Your task to perform on an android device: check out phone information Image 0: 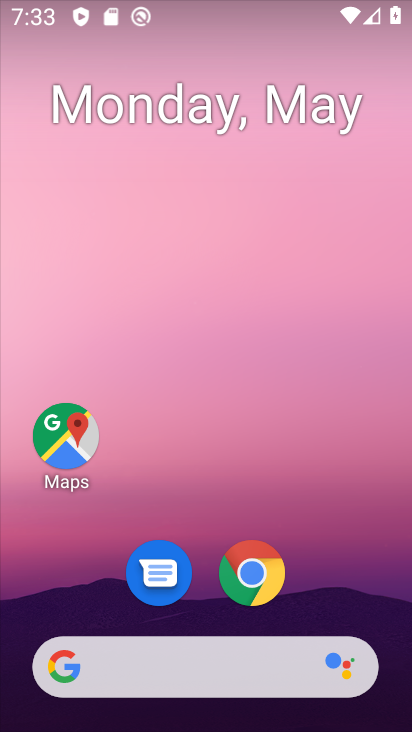
Step 0: click (266, 592)
Your task to perform on an android device: check out phone information Image 1: 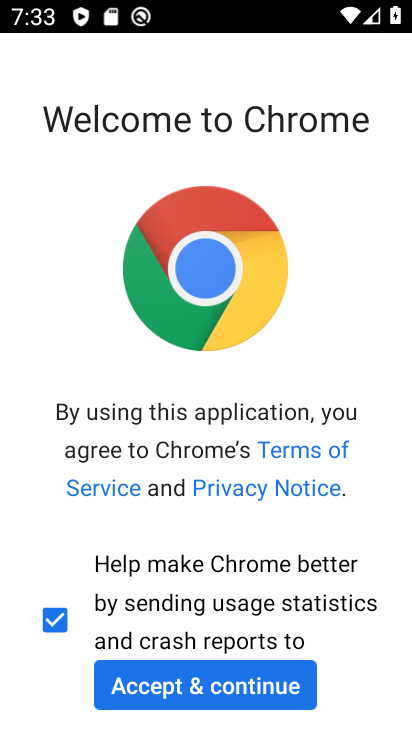
Step 1: press home button
Your task to perform on an android device: check out phone information Image 2: 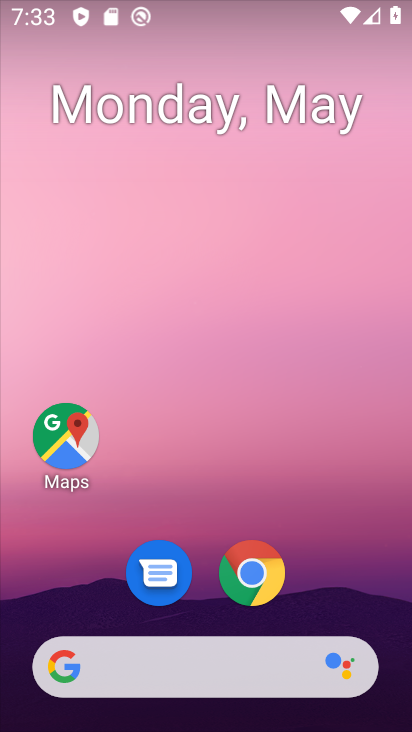
Step 2: drag from (332, 581) to (256, 28)
Your task to perform on an android device: check out phone information Image 3: 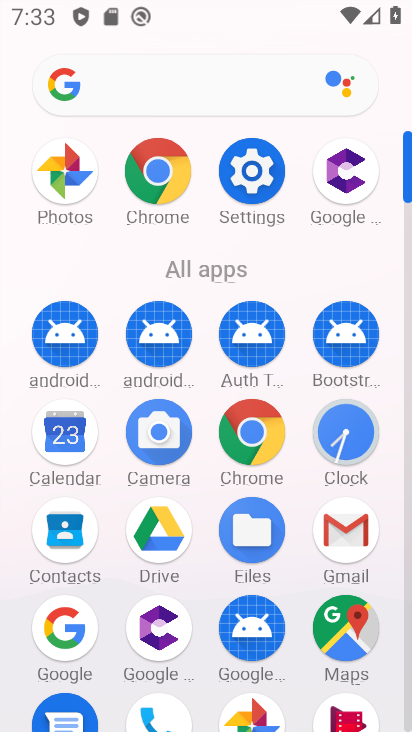
Step 3: click (246, 171)
Your task to perform on an android device: check out phone information Image 4: 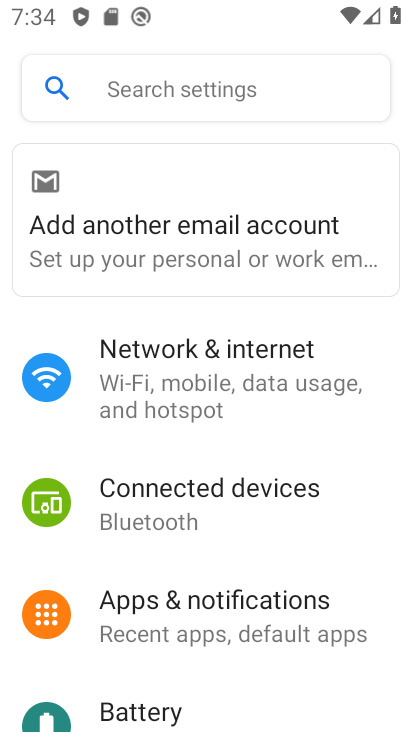
Step 4: task complete